Your task to perform on an android device: check android version Image 0: 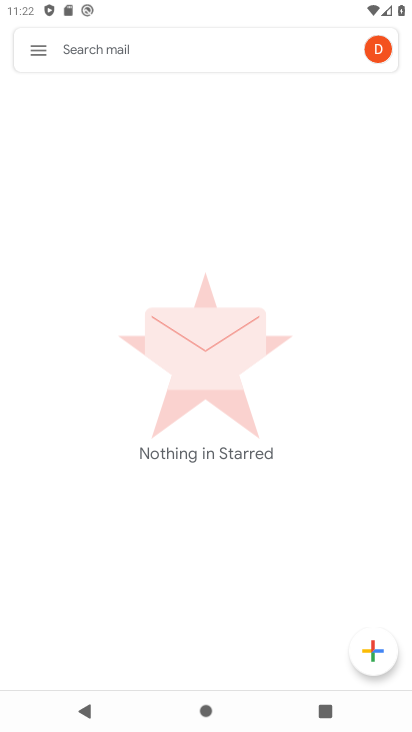
Step 0: press home button
Your task to perform on an android device: check android version Image 1: 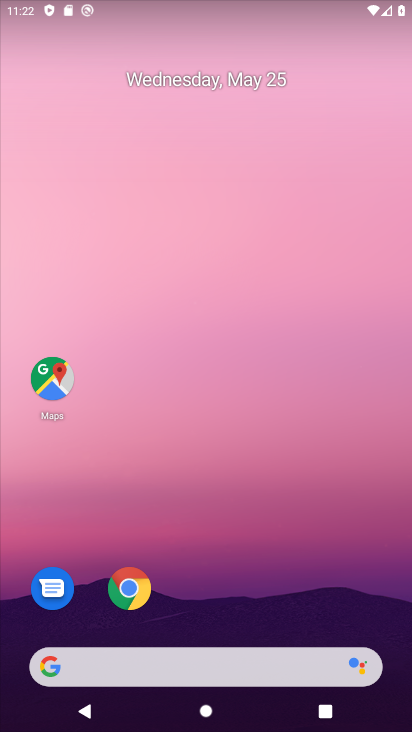
Step 1: drag from (223, 597) to (198, 15)
Your task to perform on an android device: check android version Image 2: 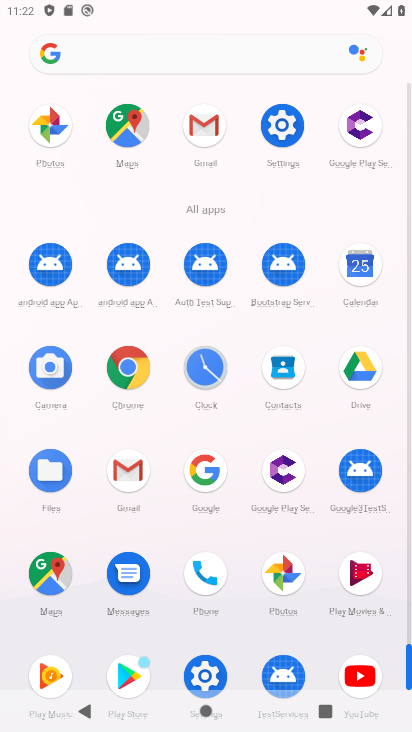
Step 2: drag from (3, 559) to (10, 246)
Your task to perform on an android device: check android version Image 3: 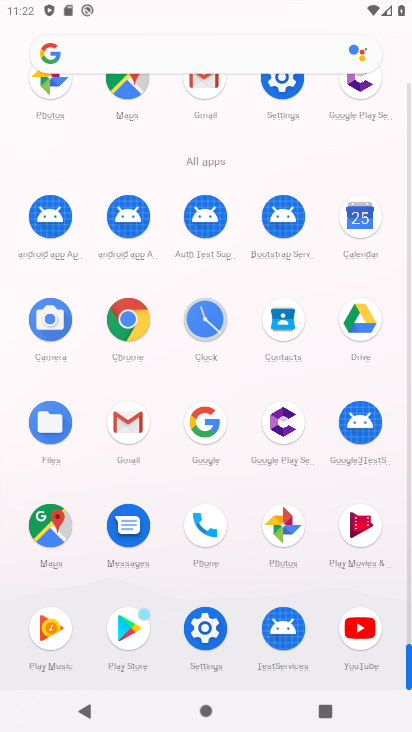
Step 3: click (200, 626)
Your task to perform on an android device: check android version Image 4: 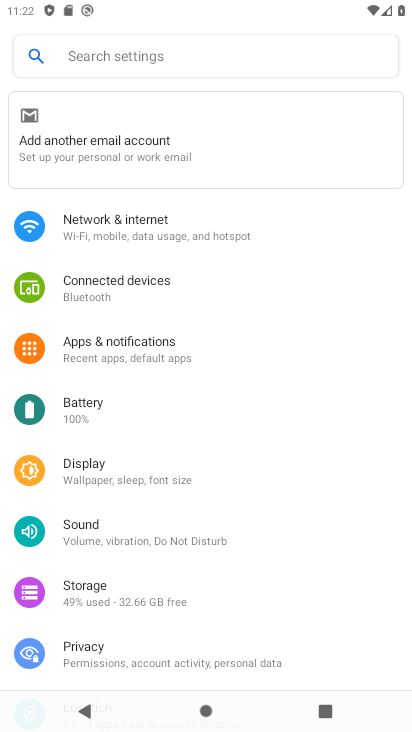
Step 4: drag from (261, 602) to (257, 154)
Your task to perform on an android device: check android version Image 5: 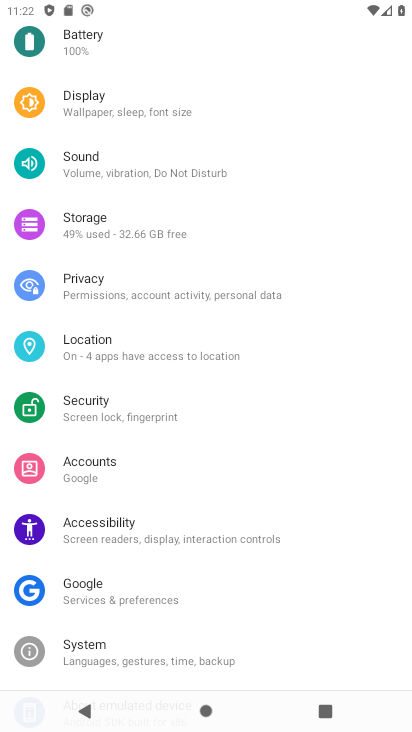
Step 5: drag from (224, 610) to (235, 127)
Your task to perform on an android device: check android version Image 6: 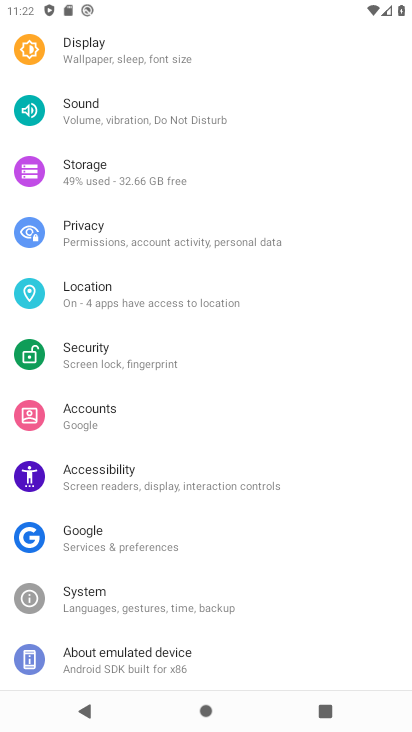
Step 6: click (124, 657)
Your task to perform on an android device: check android version Image 7: 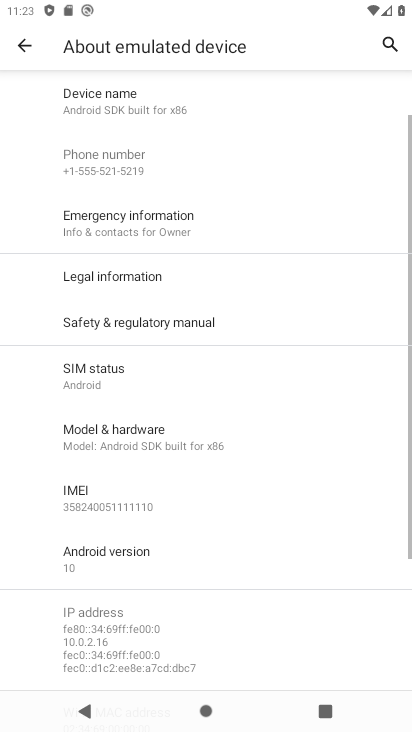
Step 7: task complete